Your task to perform on an android device: Go to Amazon Image 0: 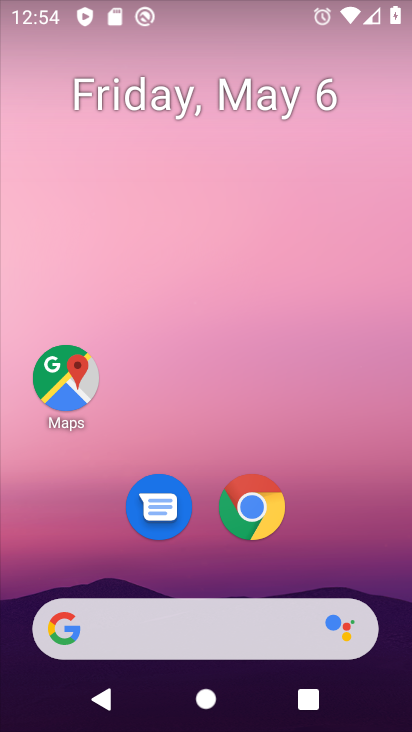
Step 0: click (249, 515)
Your task to perform on an android device: Go to Amazon Image 1: 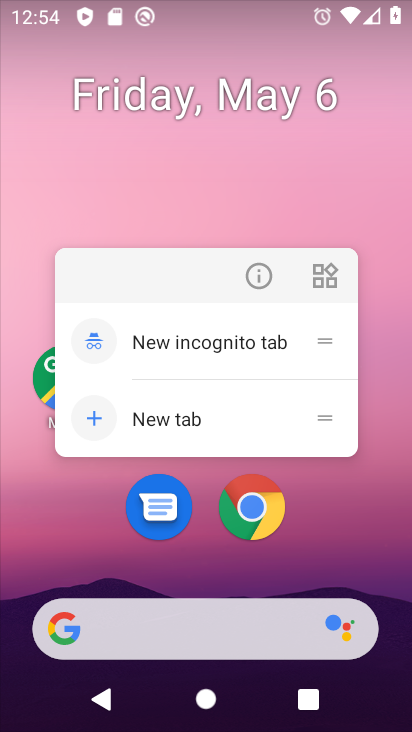
Step 1: click (258, 506)
Your task to perform on an android device: Go to Amazon Image 2: 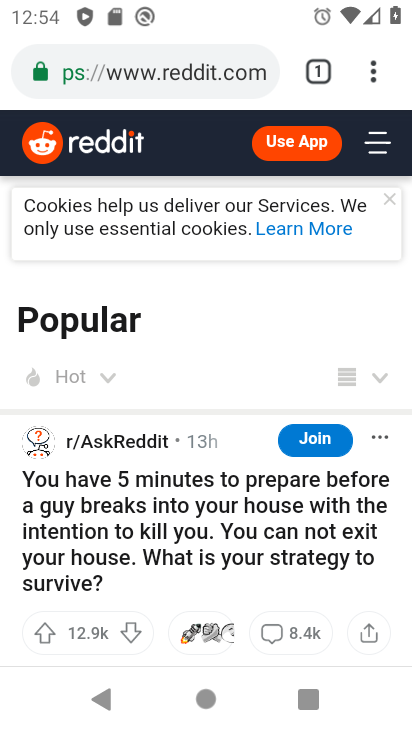
Step 2: task complete